Your task to perform on an android device: turn pop-ups off in chrome Image 0: 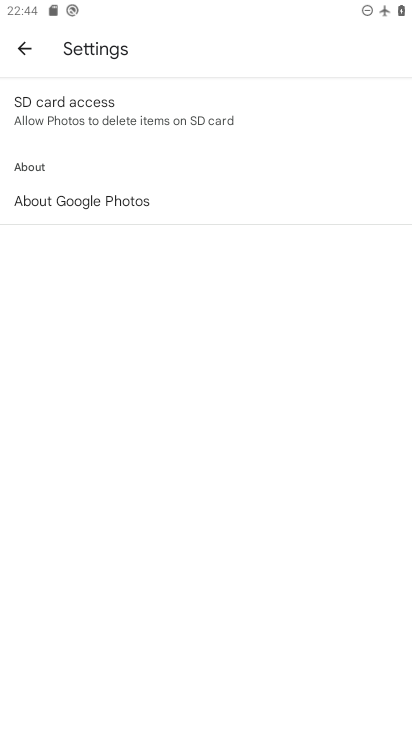
Step 0: press home button
Your task to perform on an android device: turn pop-ups off in chrome Image 1: 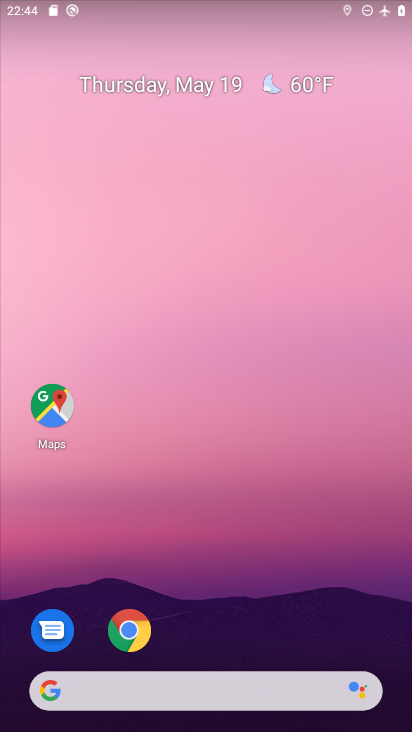
Step 1: click (131, 623)
Your task to perform on an android device: turn pop-ups off in chrome Image 2: 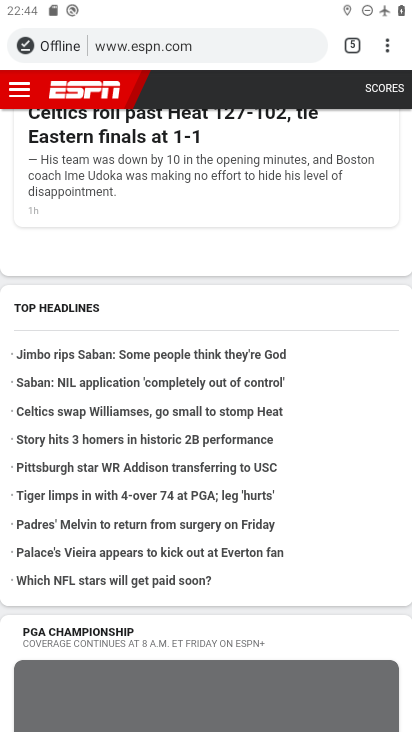
Step 2: click (385, 48)
Your task to perform on an android device: turn pop-ups off in chrome Image 3: 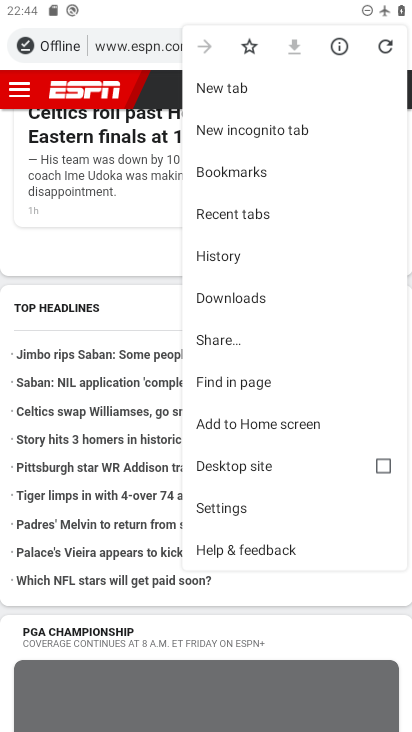
Step 3: click (217, 507)
Your task to perform on an android device: turn pop-ups off in chrome Image 4: 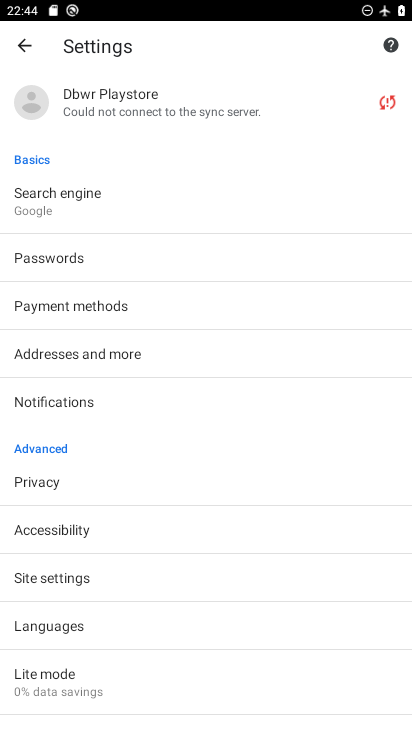
Step 4: drag from (217, 507) to (204, 302)
Your task to perform on an android device: turn pop-ups off in chrome Image 5: 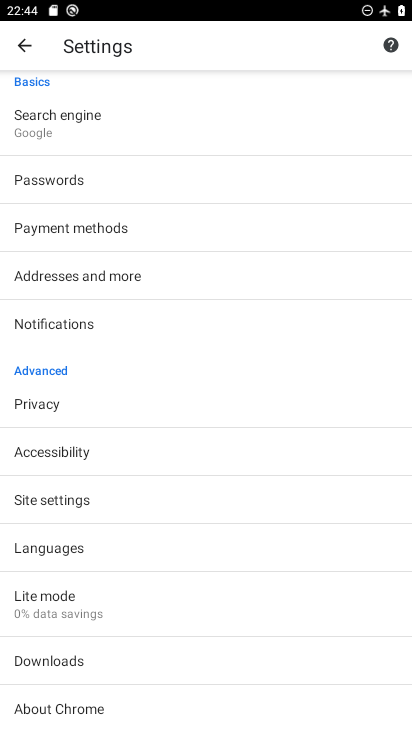
Step 5: click (63, 505)
Your task to perform on an android device: turn pop-ups off in chrome Image 6: 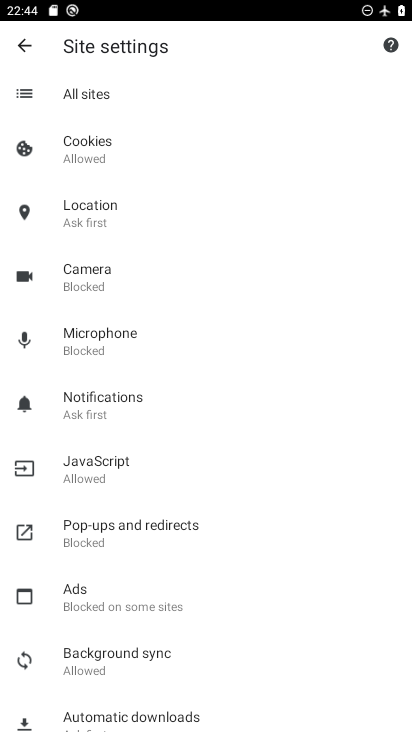
Step 6: click (78, 525)
Your task to perform on an android device: turn pop-ups off in chrome Image 7: 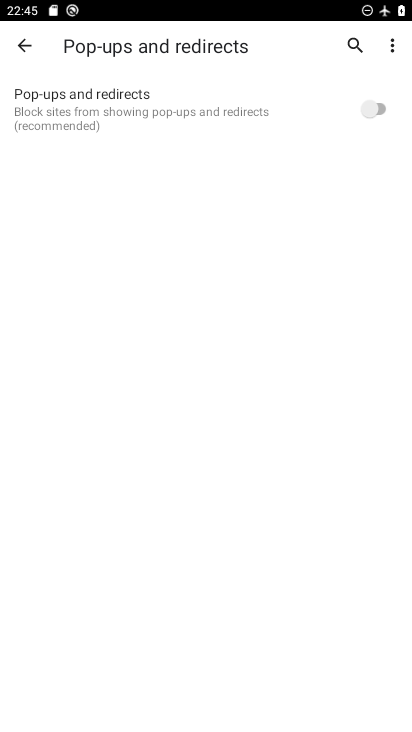
Step 7: click (378, 108)
Your task to perform on an android device: turn pop-ups off in chrome Image 8: 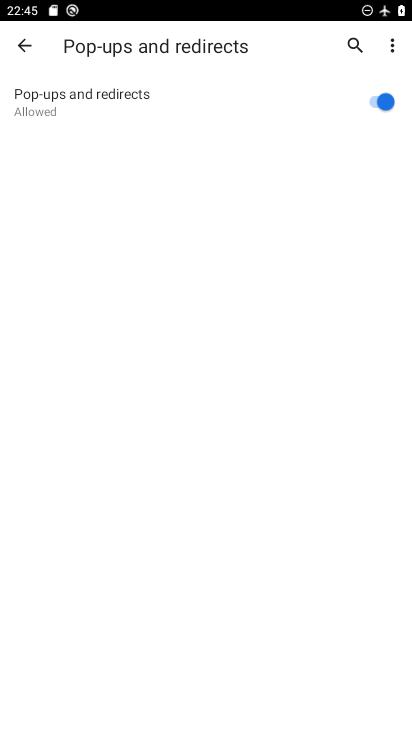
Step 8: task complete